Your task to perform on an android device: open app "HBO Max: Stream TV & Movies" (install if not already installed) Image 0: 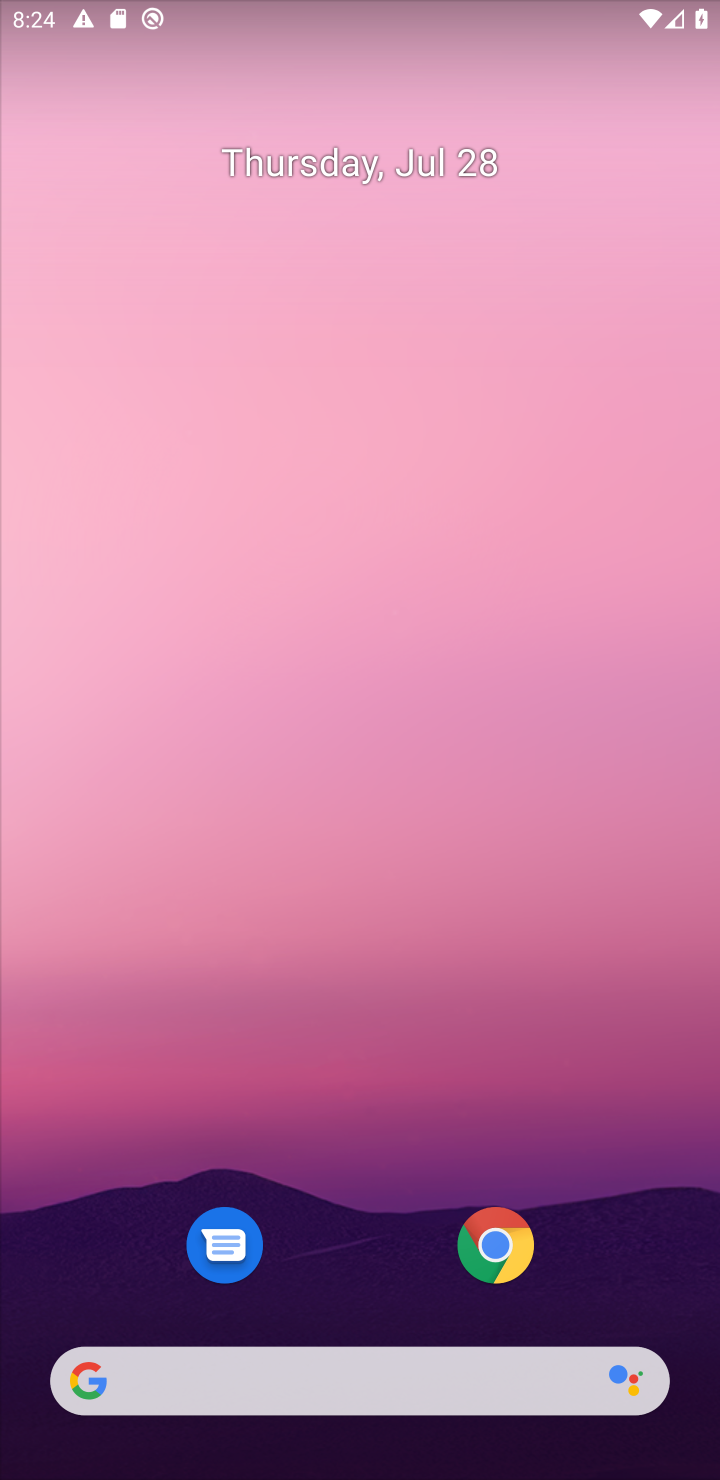
Step 0: drag from (355, 1268) to (603, 3)
Your task to perform on an android device: open app "HBO Max: Stream TV & Movies" (install if not already installed) Image 1: 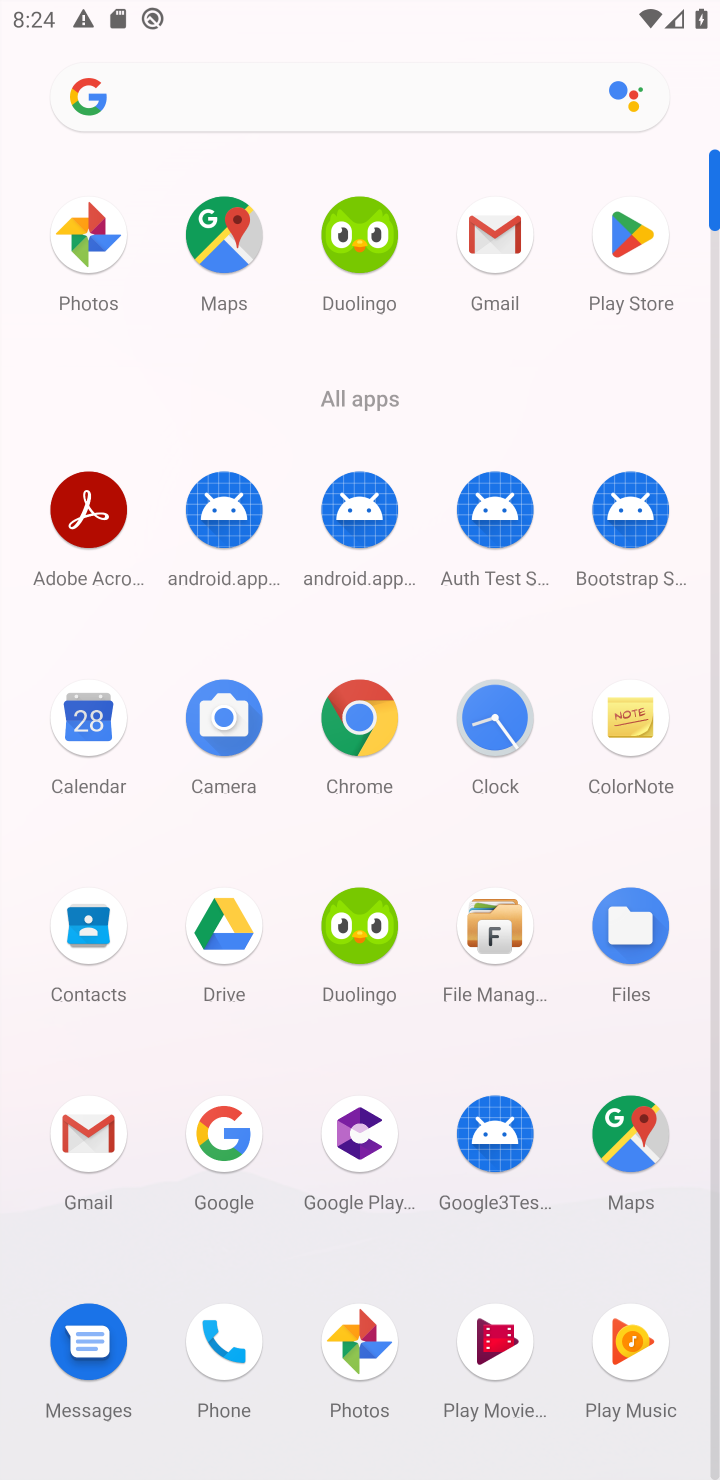
Step 1: click (640, 292)
Your task to perform on an android device: open app "HBO Max: Stream TV & Movies" (install if not already installed) Image 2: 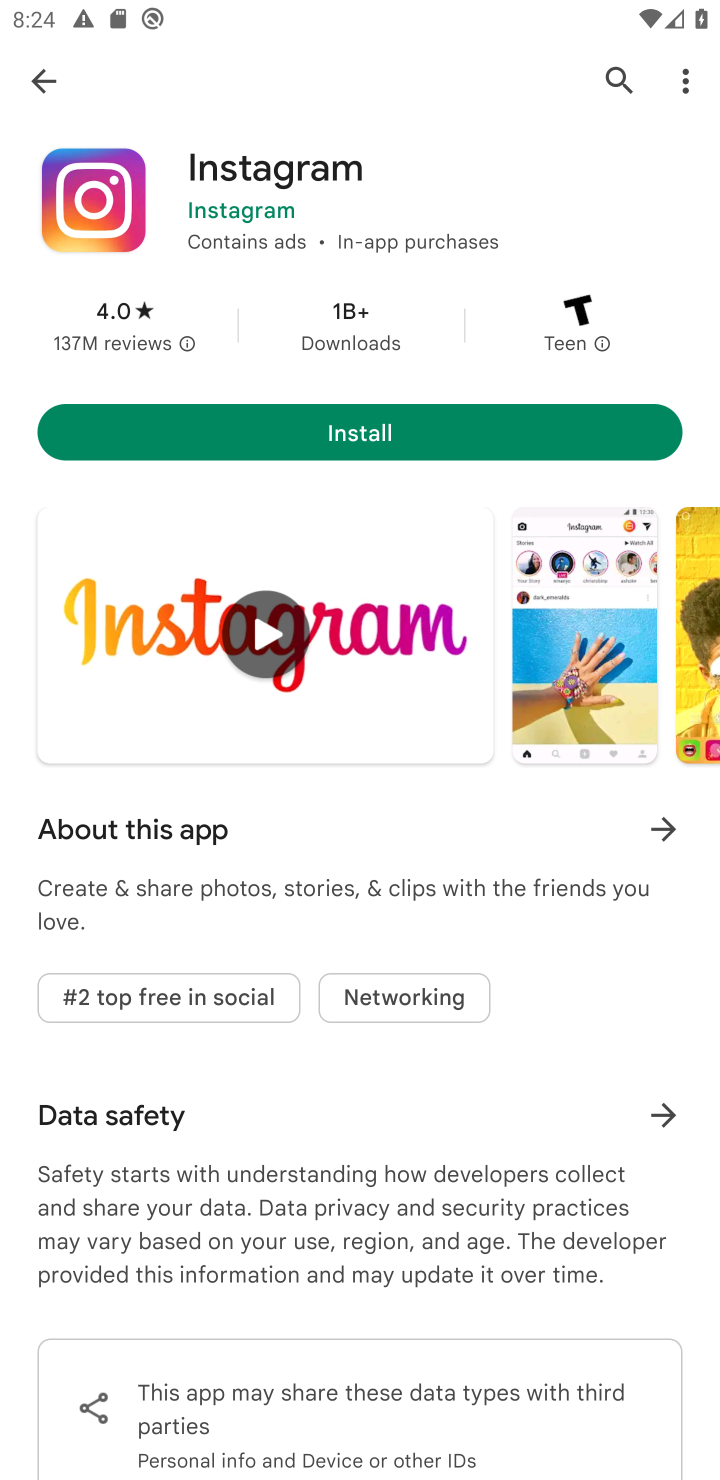
Step 2: click (609, 88)
Your task to perform on an android device: open app "HBO Max: Stream TV & Movies" (install if not already installed) Image 3: 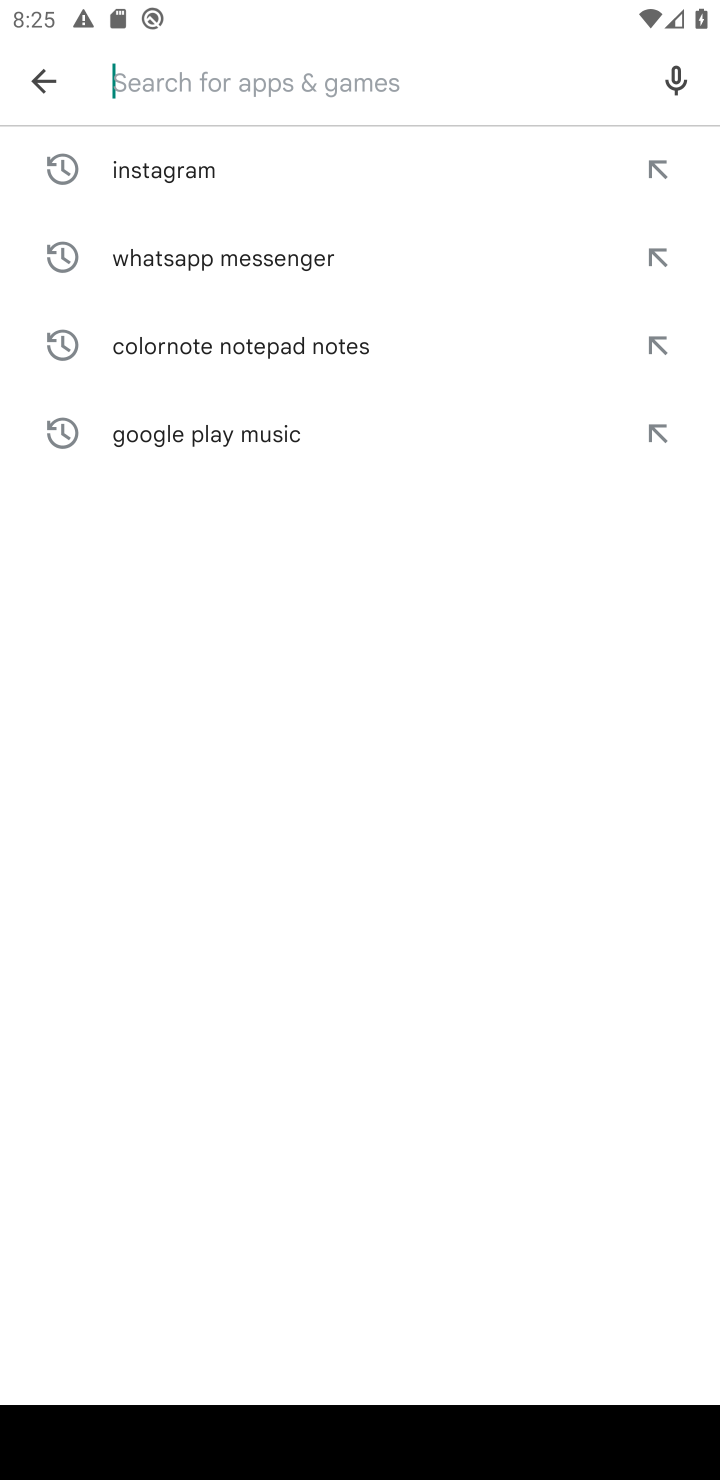
Step 3: type "HBO Max: Stream TV & Movies"
Your task to perform on an android device: open app "HBO Max: Stream TV & Movies" (install if not already installed) Image 4: 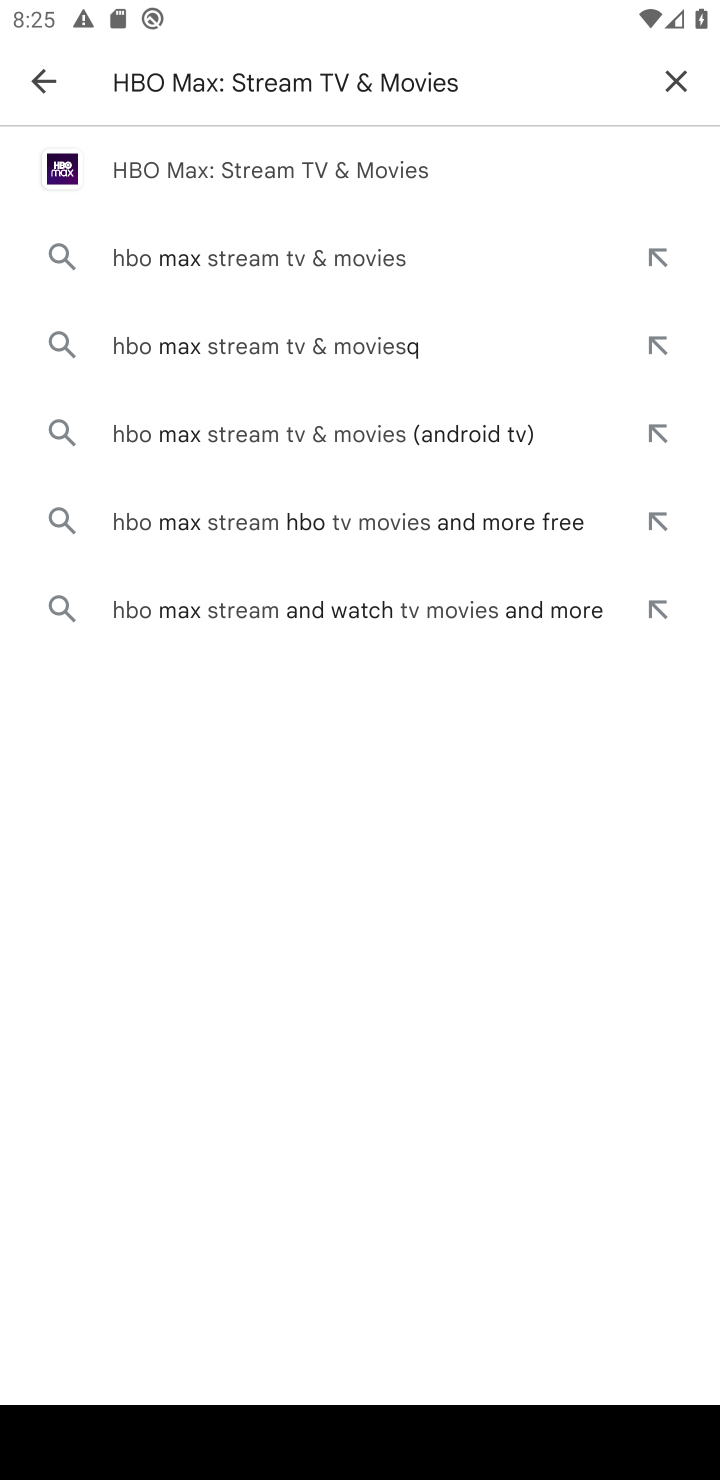
Step 4: click (342, 165)
Your task to perform on an android device: open app "HBO Max: Stream TV & Movies" (install if not already installed) Image 5: 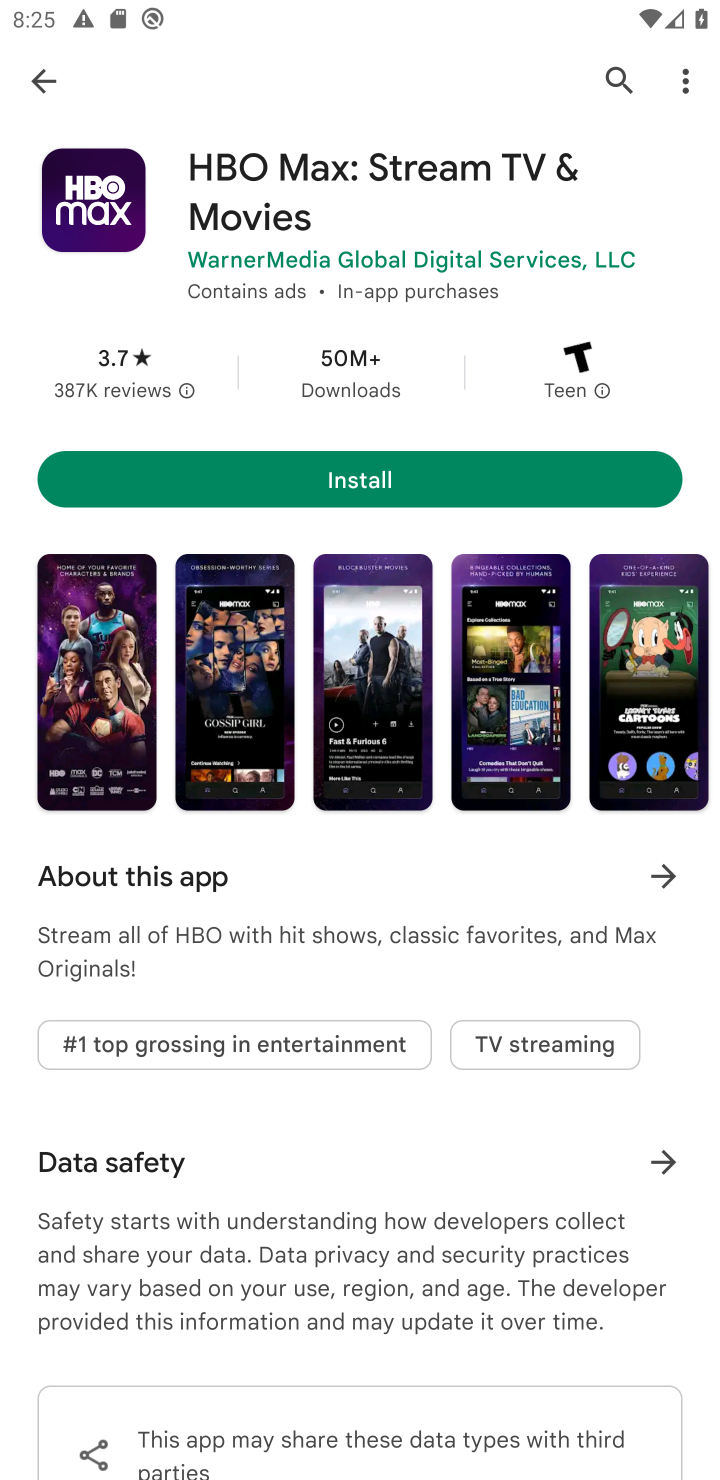
Step 5: click (321, 450)
Your task to perform on an android device: open app "HBO Max: Stream TV & Movies" (install if not already installed) Image 6: 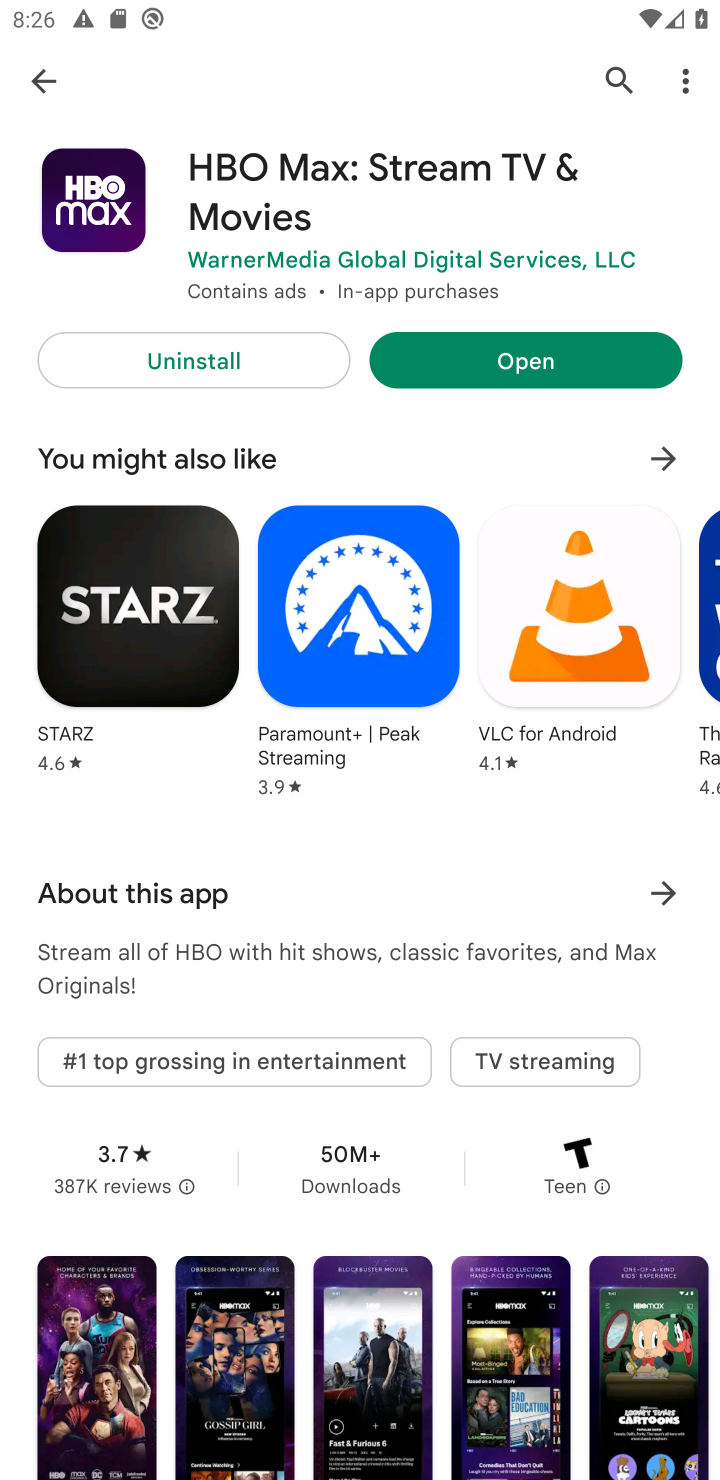
Step 6: click (628, 354)
Your task to perform on an android device: open app "HBO Max: Stream TV & Movies" (install if not already installed) Image 7: 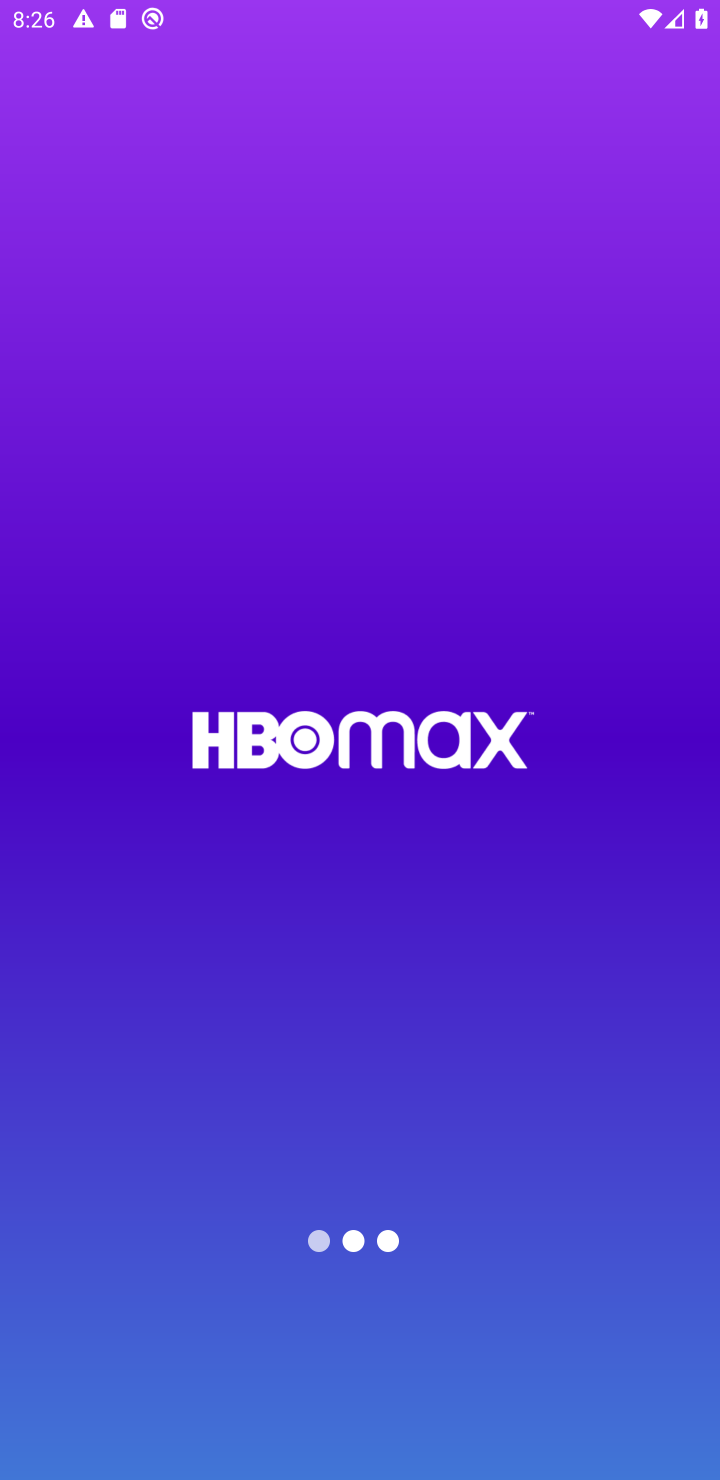
Step 7: task complete